Your task to perform on an android device: turn smart compose on in the gmail app Image 0: 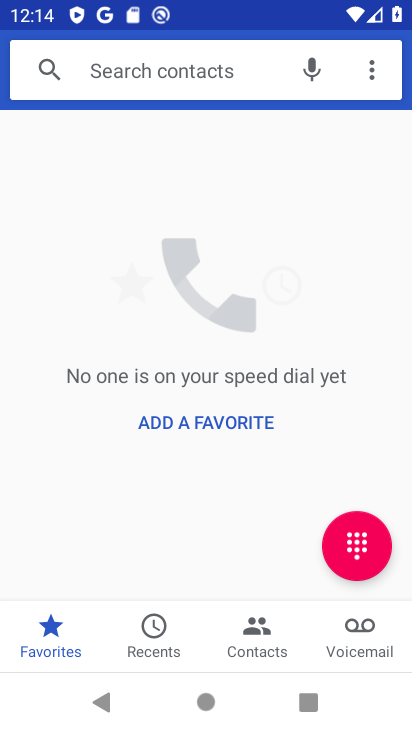
Step 0: press back button
Your task to perform on an android device: turn smart compose on in the gmail app Image 1: 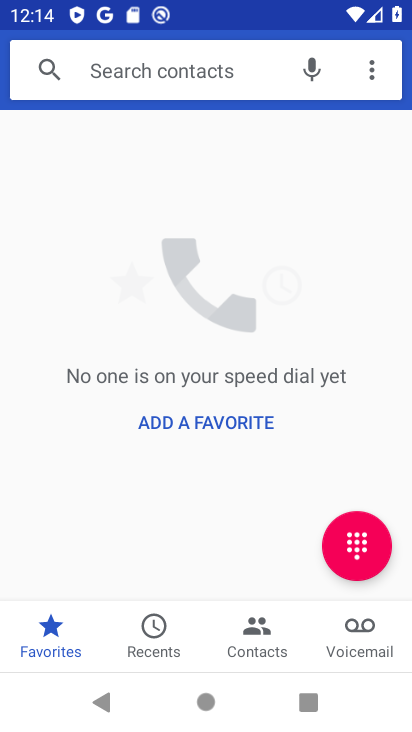
Step 1: press back button
Your task to perform on an android device: turn smart compose on in the gmail app Image 2: 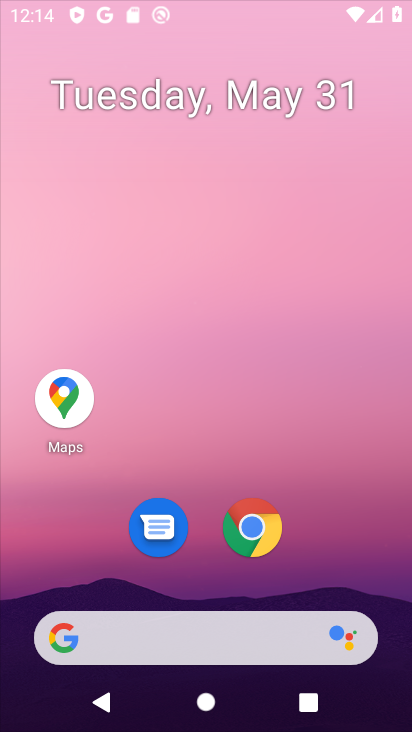
Step 2: press back button
Your task to perform on an android device: turn smart compose on in the gmail app Image 3: 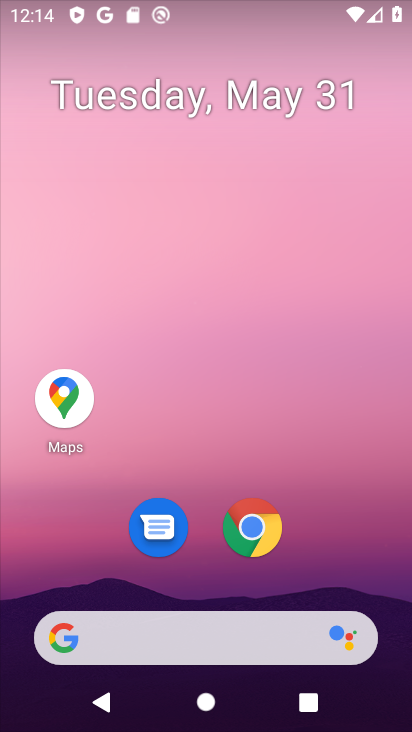
Step 3: drag from (240, 648) to (240, 213)
Your task to perform on an android device: turn smart compose on in the gmail app Image 4: 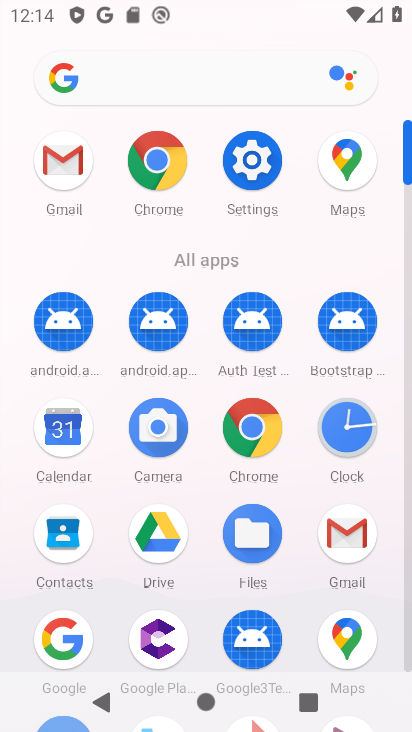
Step 4: click (348, 546)
Your task to perform on an android device: turn smart compose on in the gmail app Image 5: 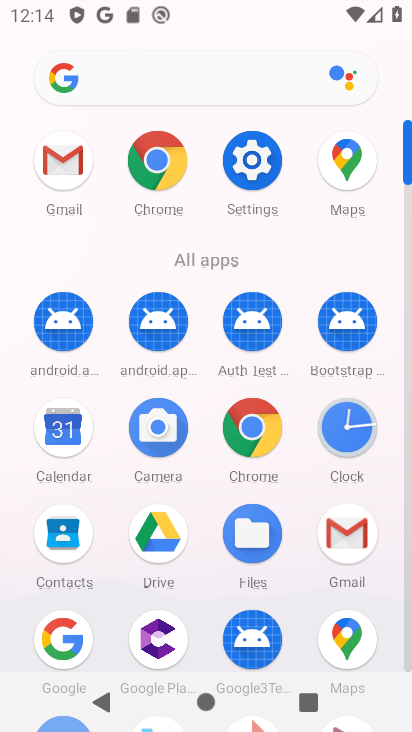
Step 5: click (348, 546)
Your task to perform on an android device: turn smart compose on in the gmail app Image 6: 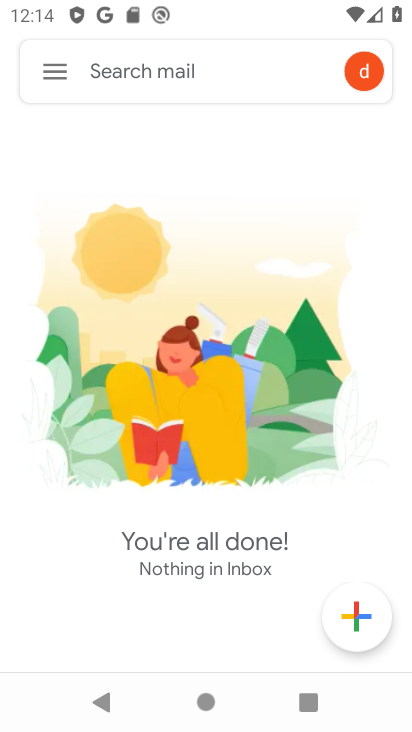
Step 6: press back button
Your task to perform on an android device: turn smart compose on in the gmail app Image 7: 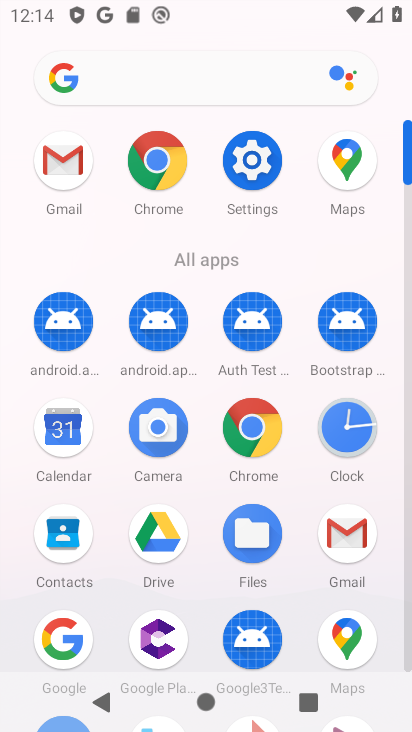
Step 7: click (358, 530)
Your task to perform on an android device: turn smart compose on in the gmail app Image 8: 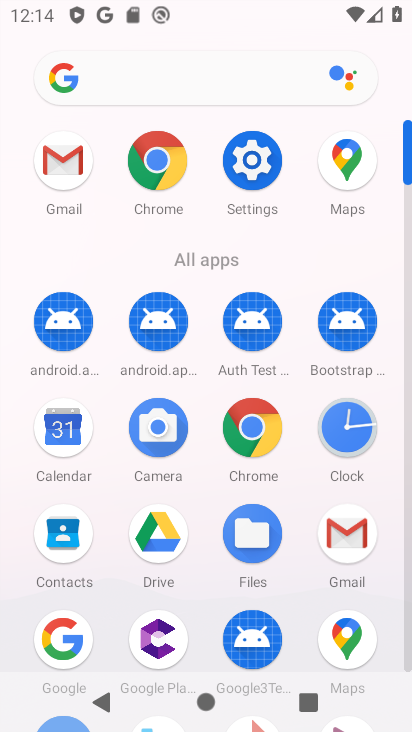
Step 8: click (355, 530)
Your task to perform on an android device: turn smart compose on in the gmail app Image 9: 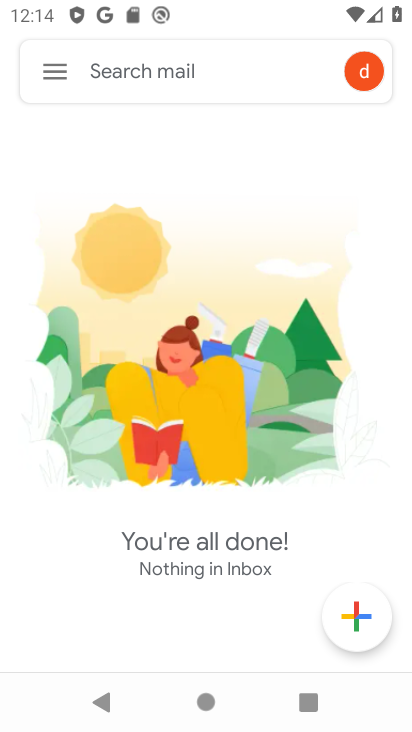
Step 9: drag from (54, 65) to (81, 375)
Your task to perform on an android device: turn smart compose on in the gmail app Image 10: 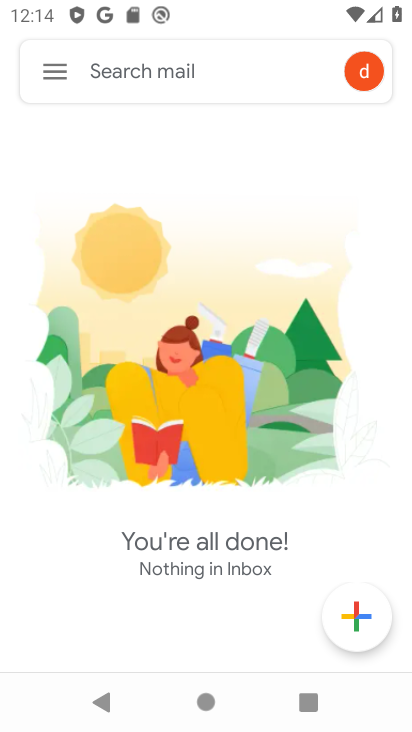
Step 10: drag from (61, 60) to (66, 187)
Your task to perform on an android device: turn smart compose on in the gmail app Image 11: 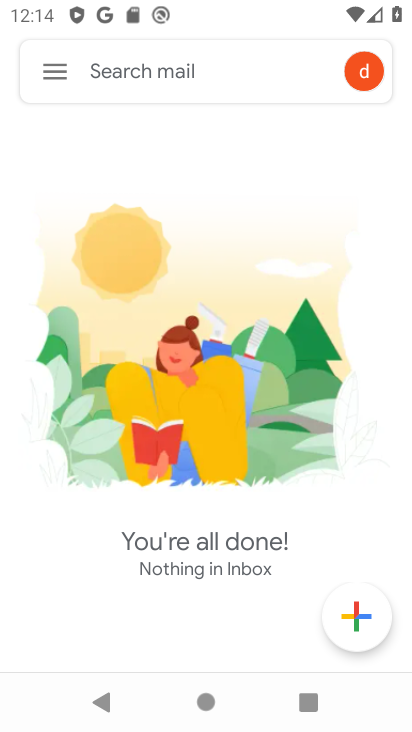
Step 11: click (58, 68)
Your task to perform on an android device: turn smart compose on in the gmail app Image 12: 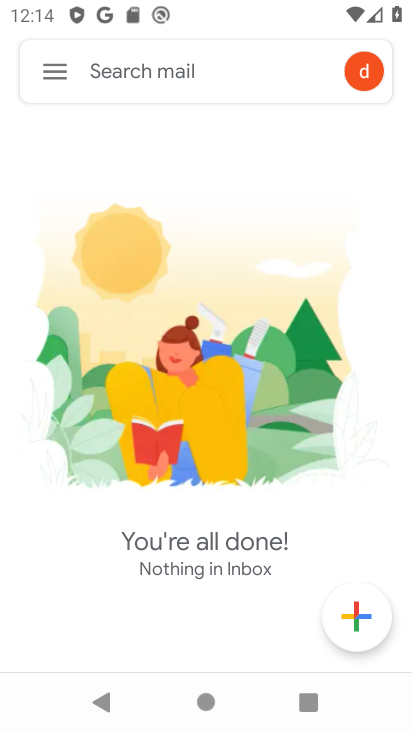
Step 12: drag from (58, 68) to (407, 498)
Your task to perform on an android device: turn smart compose on in the gmail app Image 13: 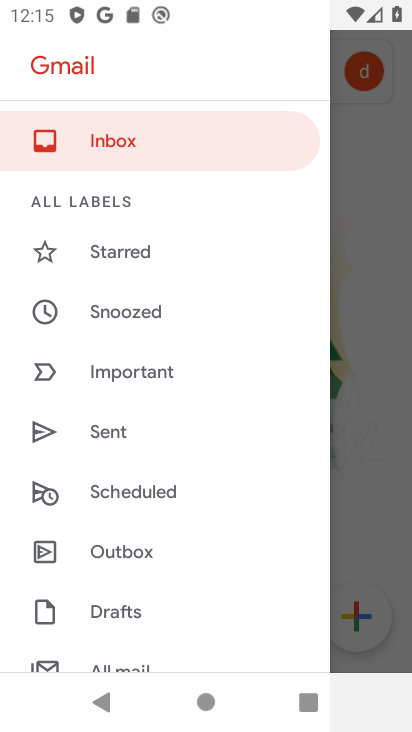
Step 13: drag from (109, 478) to (103, 175)
Your task to perform on an android device: turn smart compose on in the gmail app Image 14: 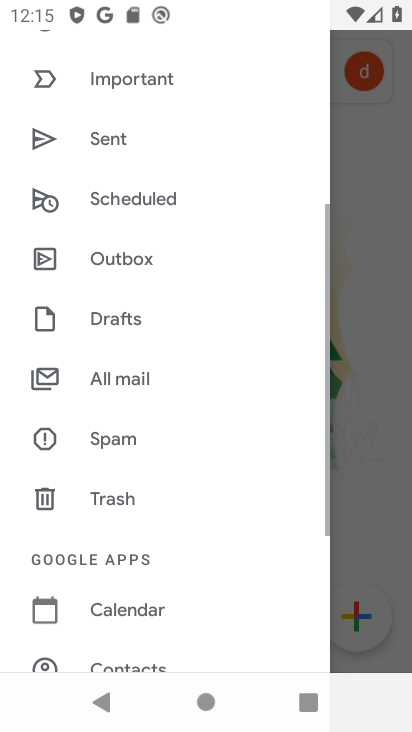
Step 14: drag from (160, 455) to (137, 240)
Your task to perform on an android device: turn smart compose on in the gmail app Image 15: 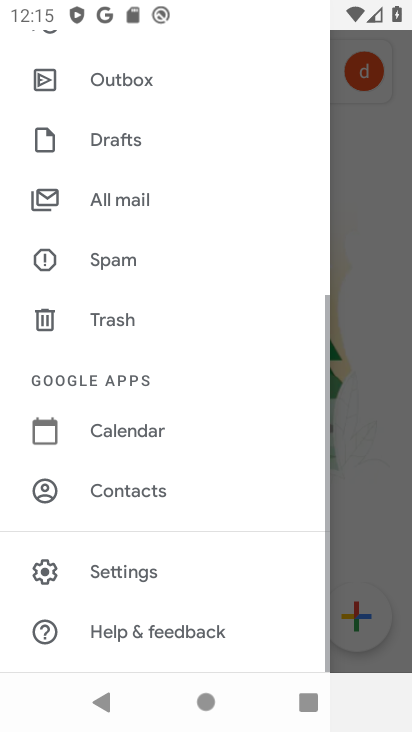
Step 15: drag from (152, 480) to (126, 223)
Your task to perform on an android device: turn smart compose on in the gmail app Image 16: 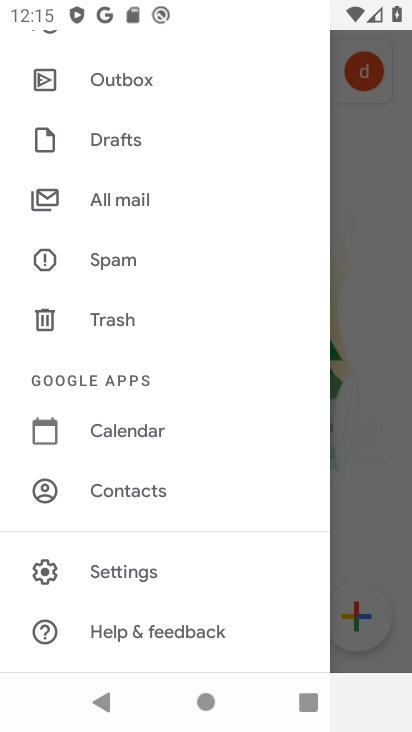
Step 16: click (108, 564)
Your task to perform on an android device: turn smart compose on in the gmail app Image 17: 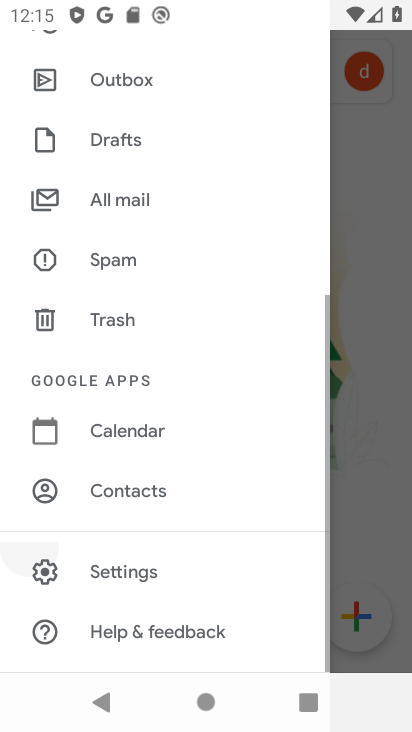
Step 17: click (110, 562)
Your task to perform on an android device: turn smart compose on in the gmail app Image 18: 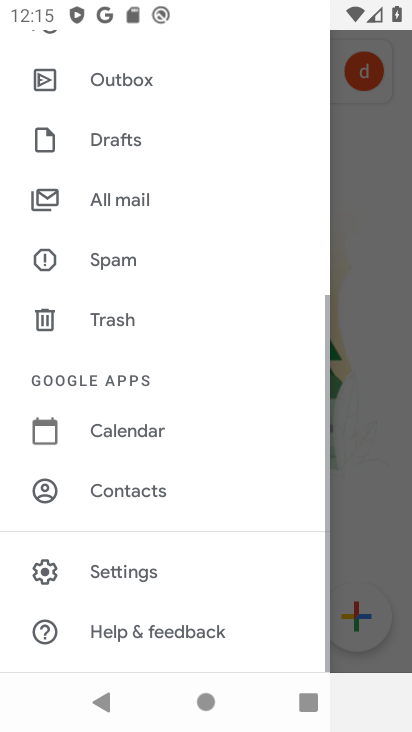
Step 18: click (111, 561)
Your task to perform on an android device: turn smart compose on in the gmail app Image 19: 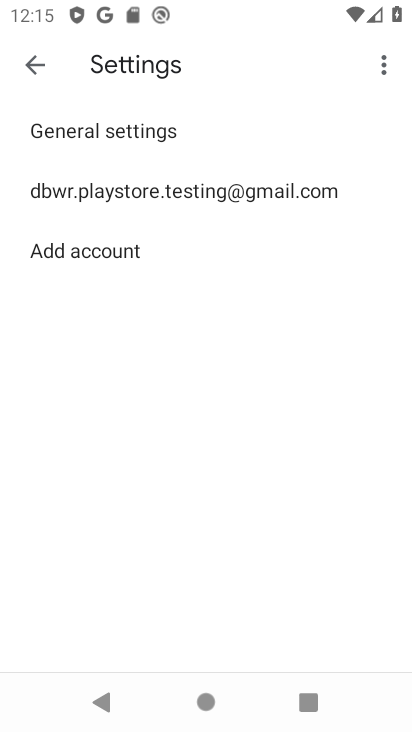
Step 19: click (126, 183)
Your task to perform on an android device: turn smart compose on in the gmail app Image 20: 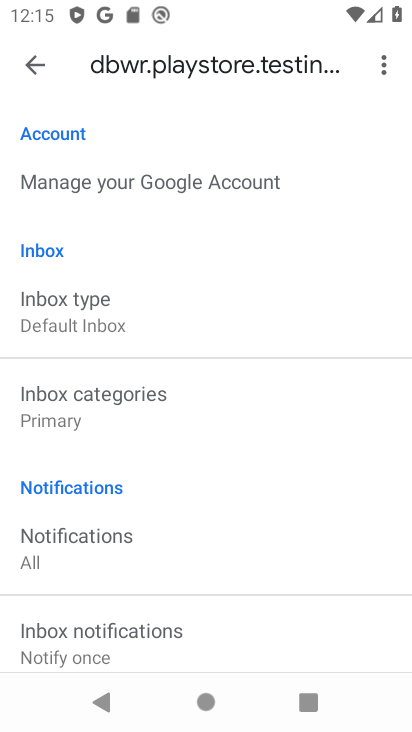
Step 20: drag from (62, 379) to (55, 239)
Your task to perform on an android device: turn smart compose on in the gmail app Image 21: 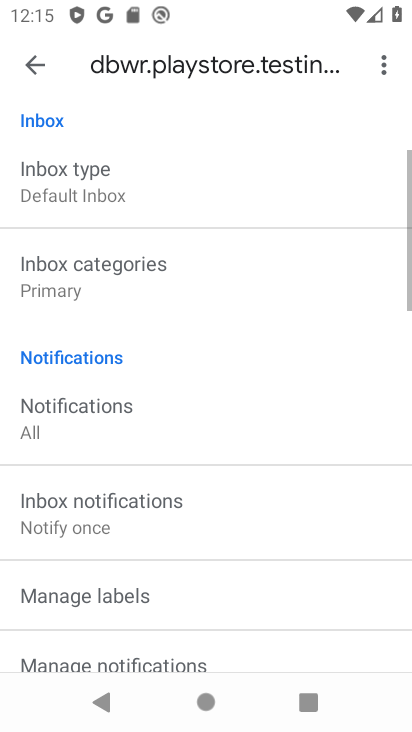
Step 21: click (180, 186)
Your task to perform on an android device: turn smart compose on in the gmail app Image 22: 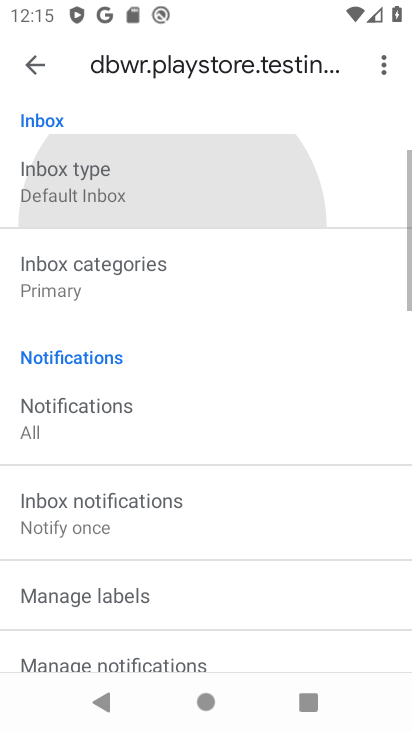
Step 22: drag from (148, 430) to (168, 212)
Your task to perform on an android device: turn smart compose on in the gmail app Image 23: 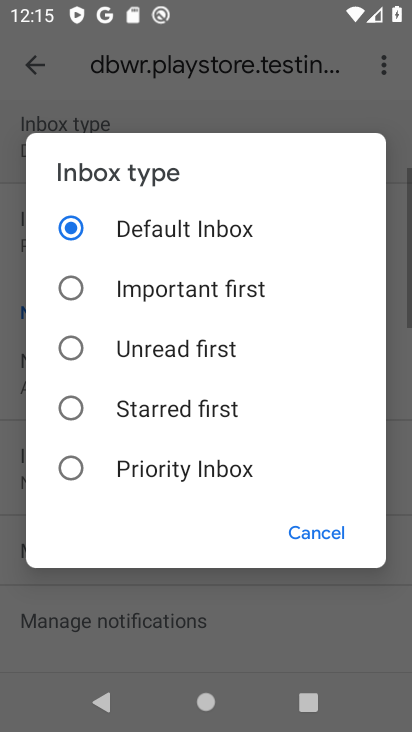
Step 23: drag from (132, 399) to (138, 230)
Your task to perform on an android device: turn smart compose on in the gmail app Image 24: 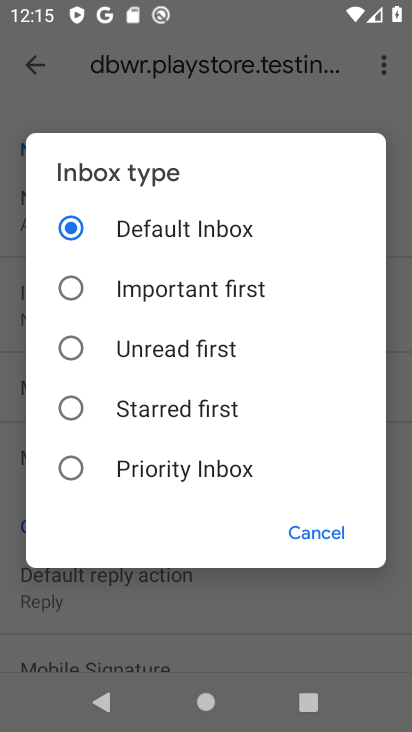
Step 24: click (323, 528)
Your task to perform on an android device: turn smart compose on in the gmail app Image 25: 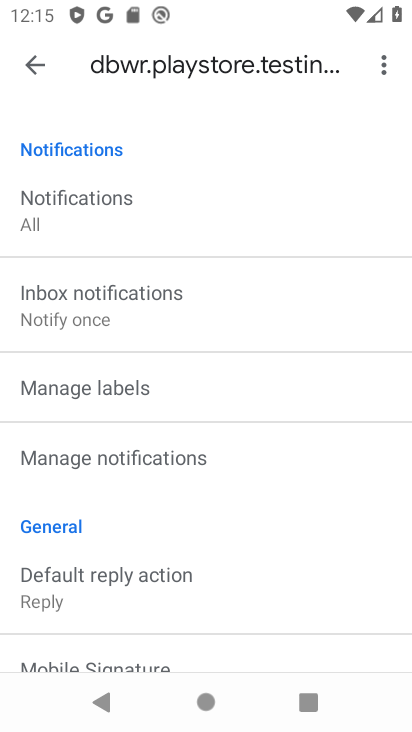
Step 25: task complete